Your task to perform on an android device: Open the calendar and show me this week's events Image 0: 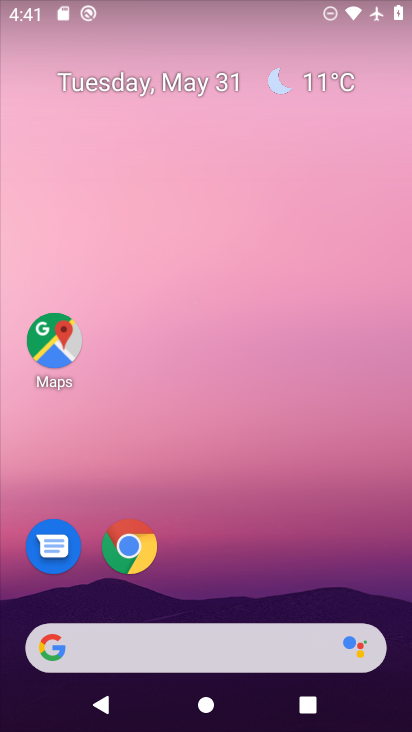
Step 0: drag from (292, 540) to (179, 22)
Your task to perform on an android device: Open the calendar and show me this week's events Image 1: 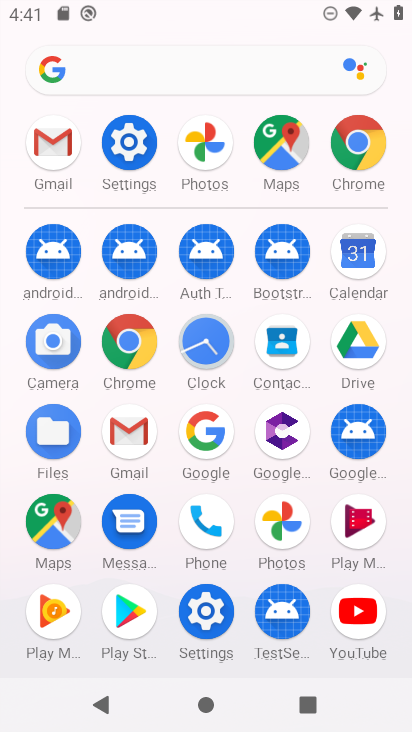
Step 1: click (358, 254)
Your task to perform on an android device: Open the calendar and show me this week's events Image 2: 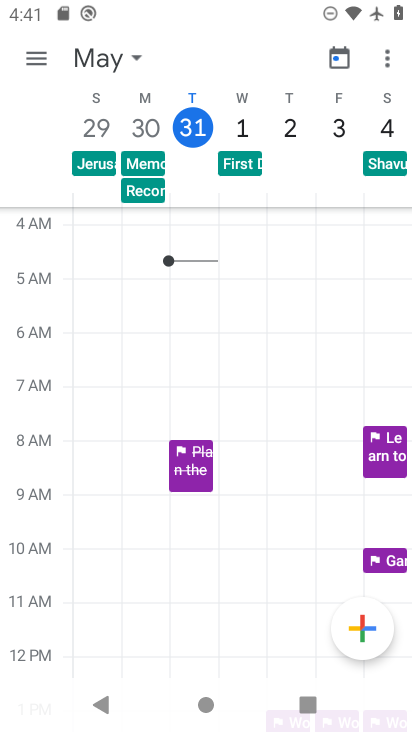
Step 2: task complete